Your task to perform on an android device: toggle translation in the chrome app Image 0: 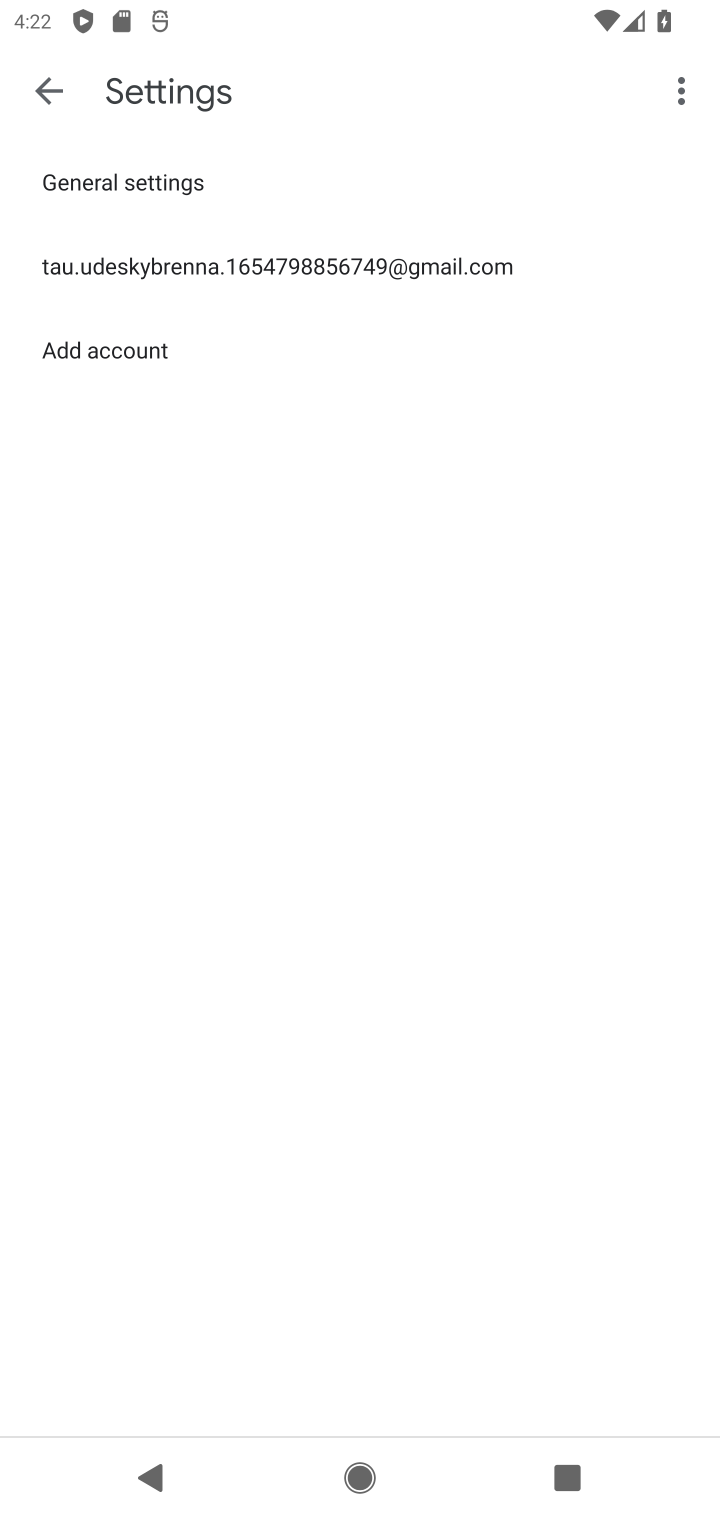
Step 0: press home button
Your task to perform on an android device: toggle translation in the chrome app Image 1: 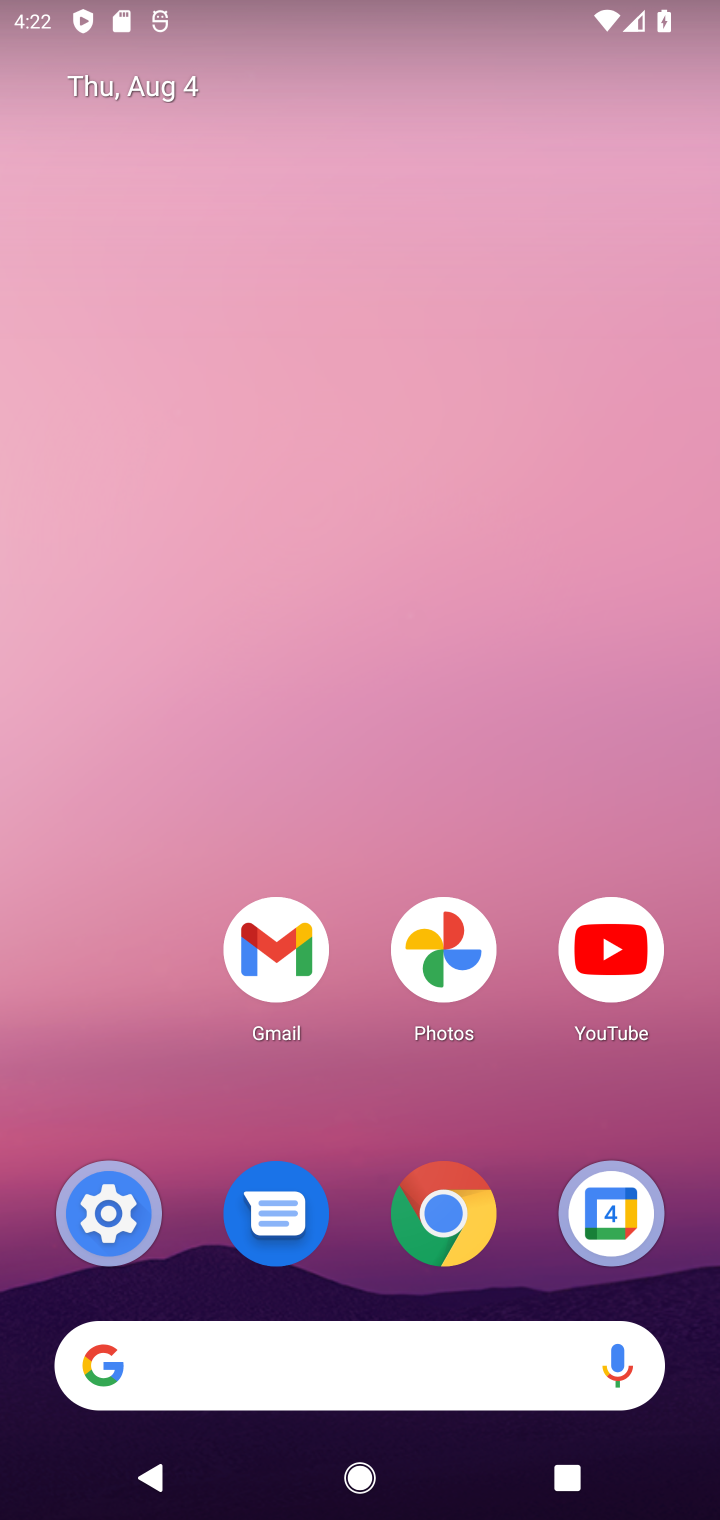
Step 1: drag from (95, 1067) to (101, 268)
Your task to perform on an android device: toggle translation in the chrome app Image 2: 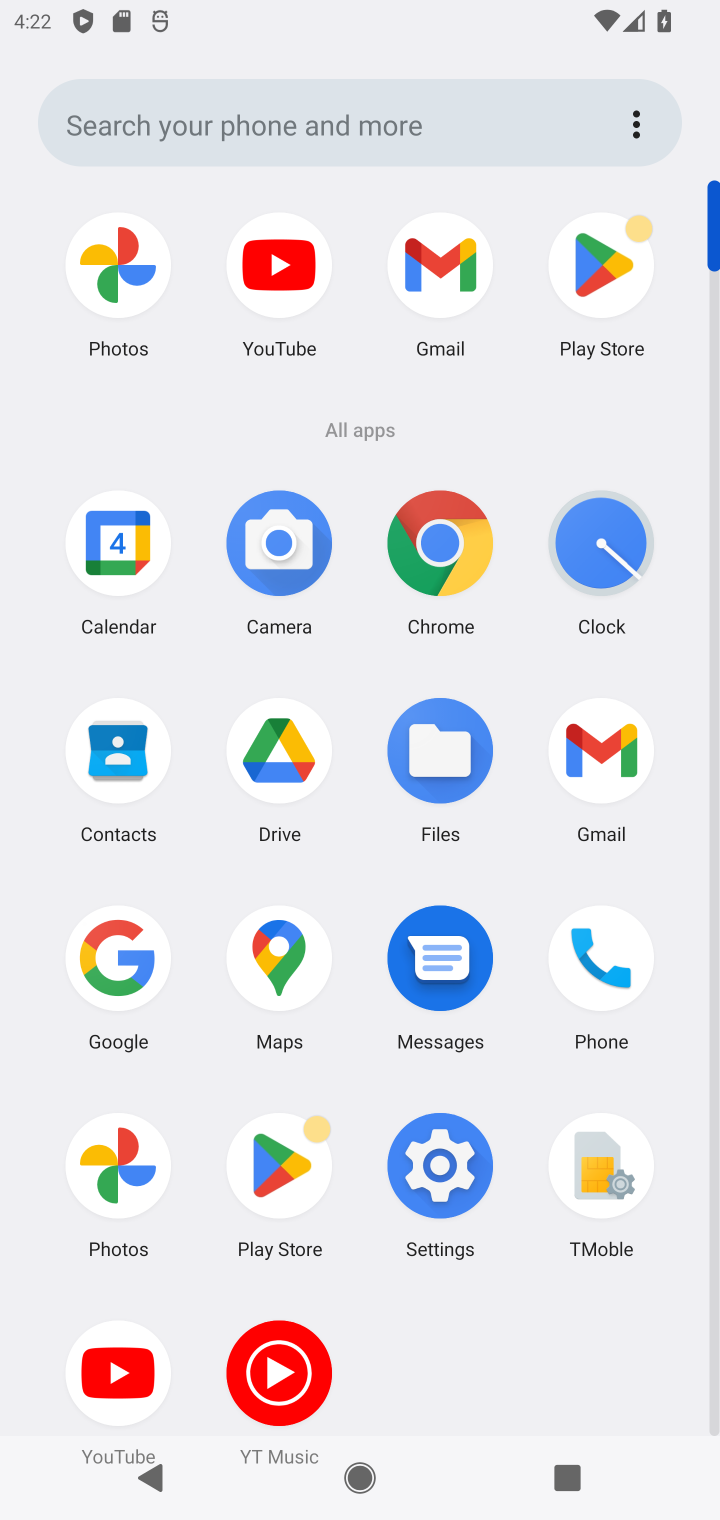
Step 2: click (454, 543)
Your task to perform on an android device: toggle translation in the chrome app Image 3: 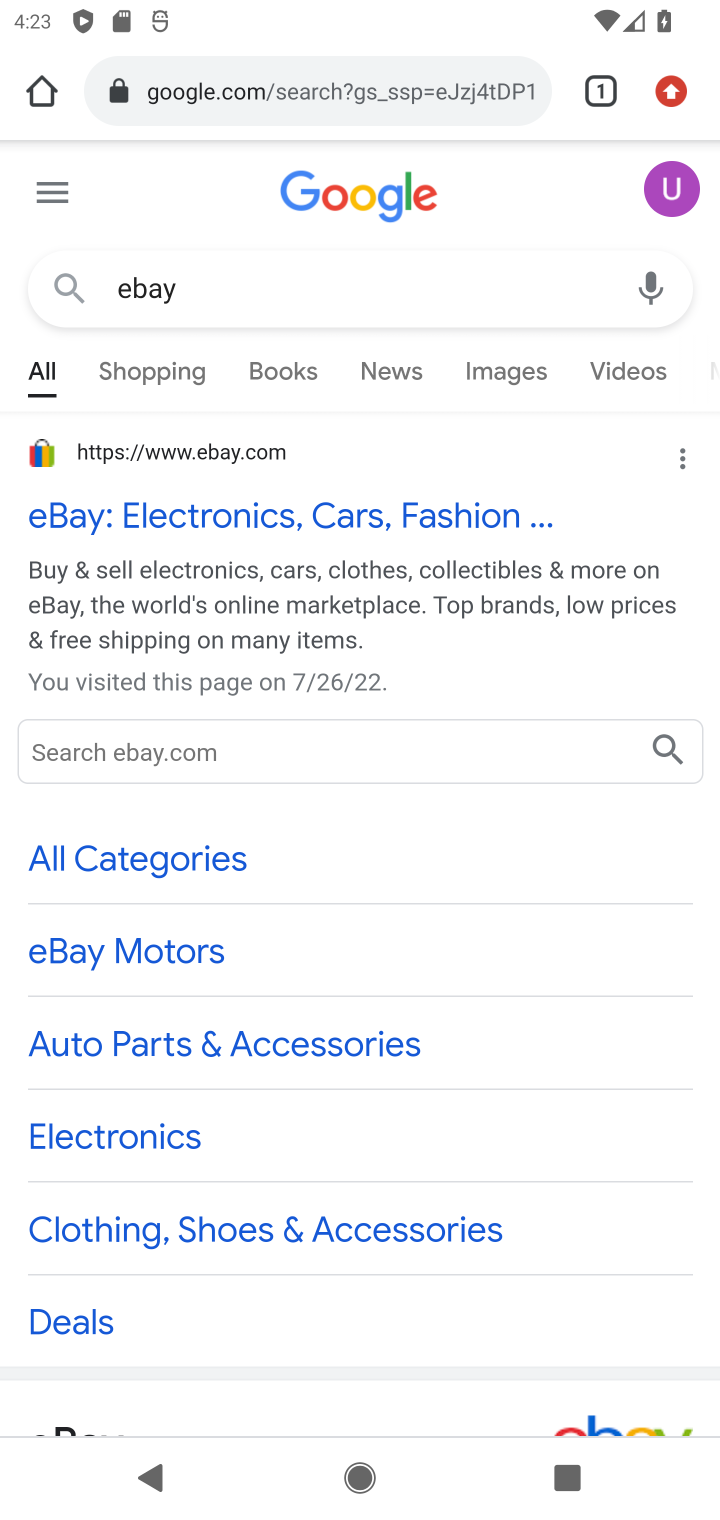
Step 3: click (671, 90)
Your task to perform on an android device: toggle translation in the chrome app Image 4: 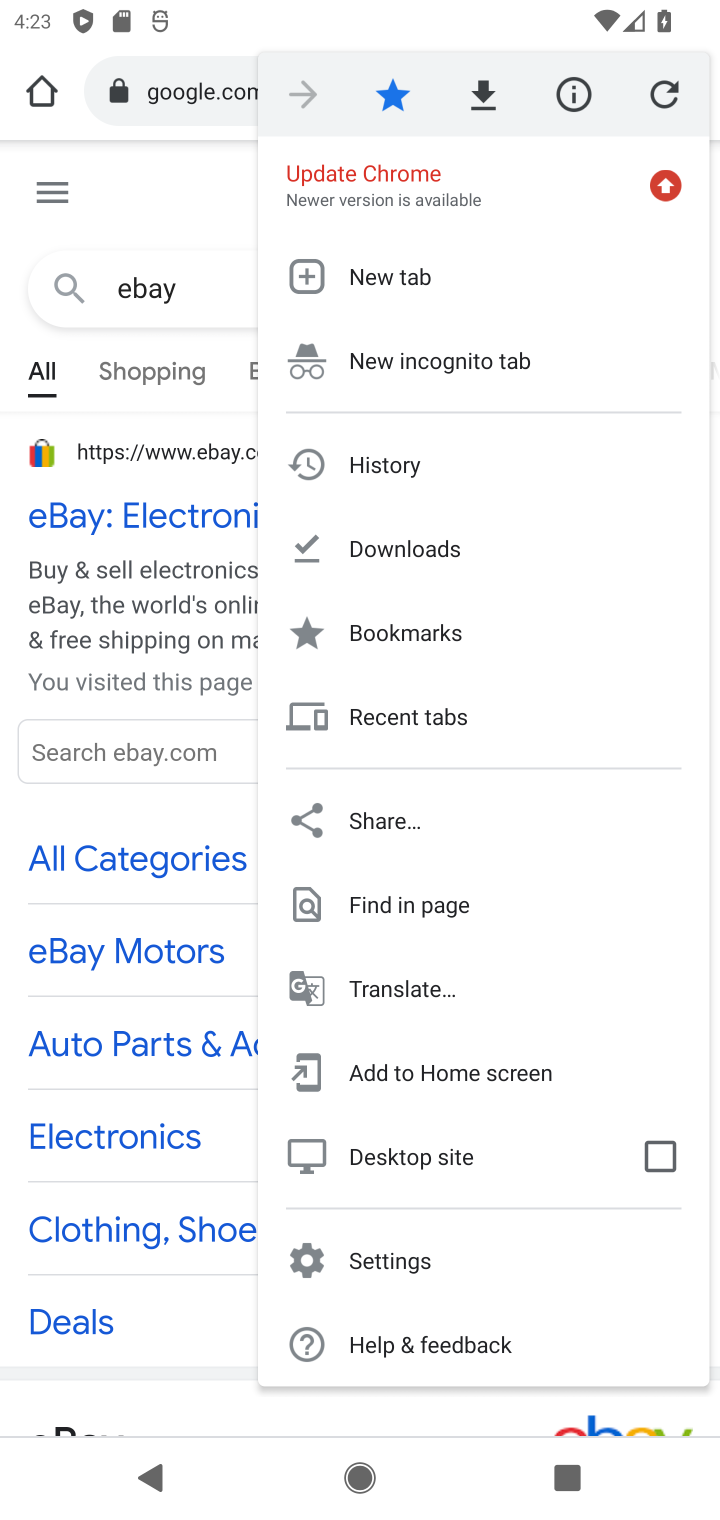
Step 4: click (429, 1255)
Your task to perform on an android device: toggle translation in the chrome app Image 5: 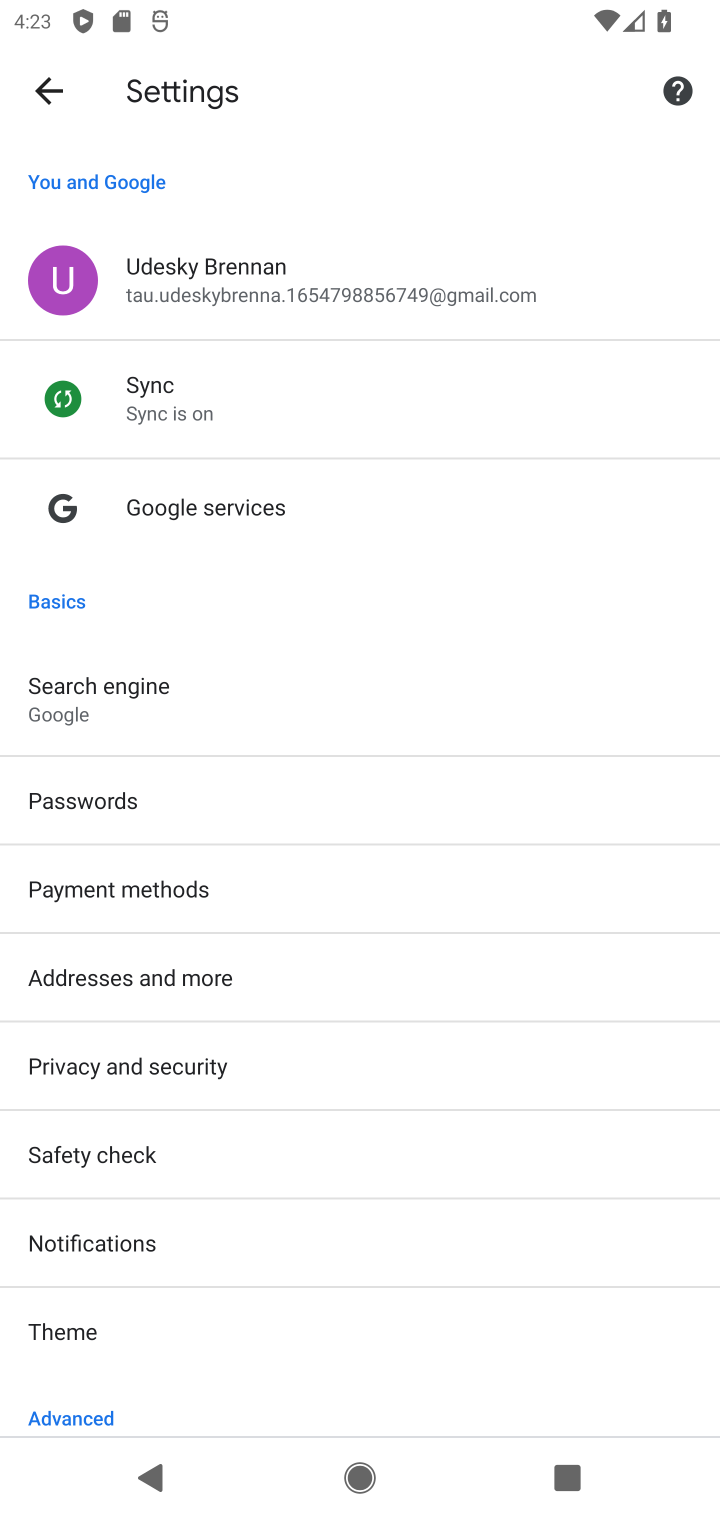
Step 5: drag from (502, 1171) to (499, 934)
Your task to perform on an android device: toggle translation in the chrome app Image 6: 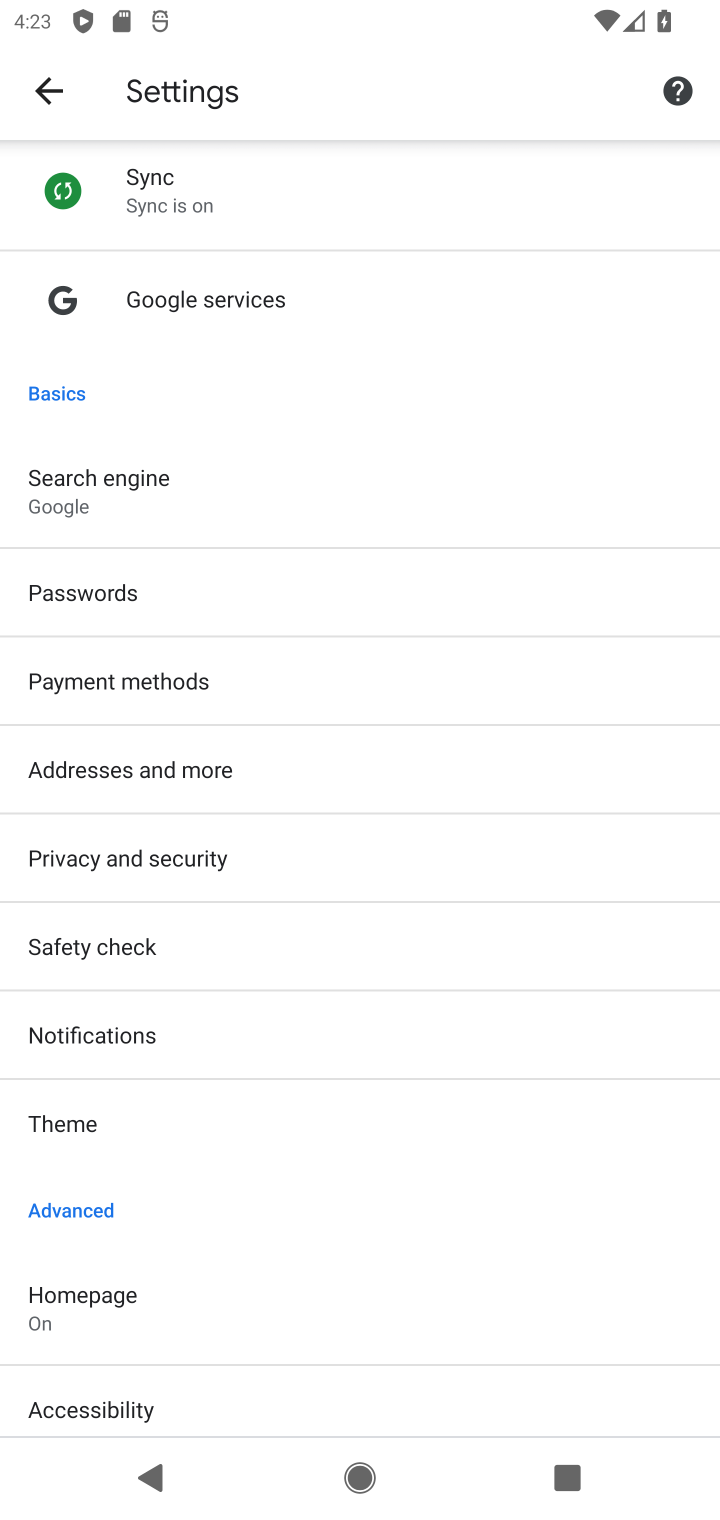
Step 6: drag from (486, 1238) to (503, 778)
Your task to perform on an android device: toggle translation in the chrome app Image 7: 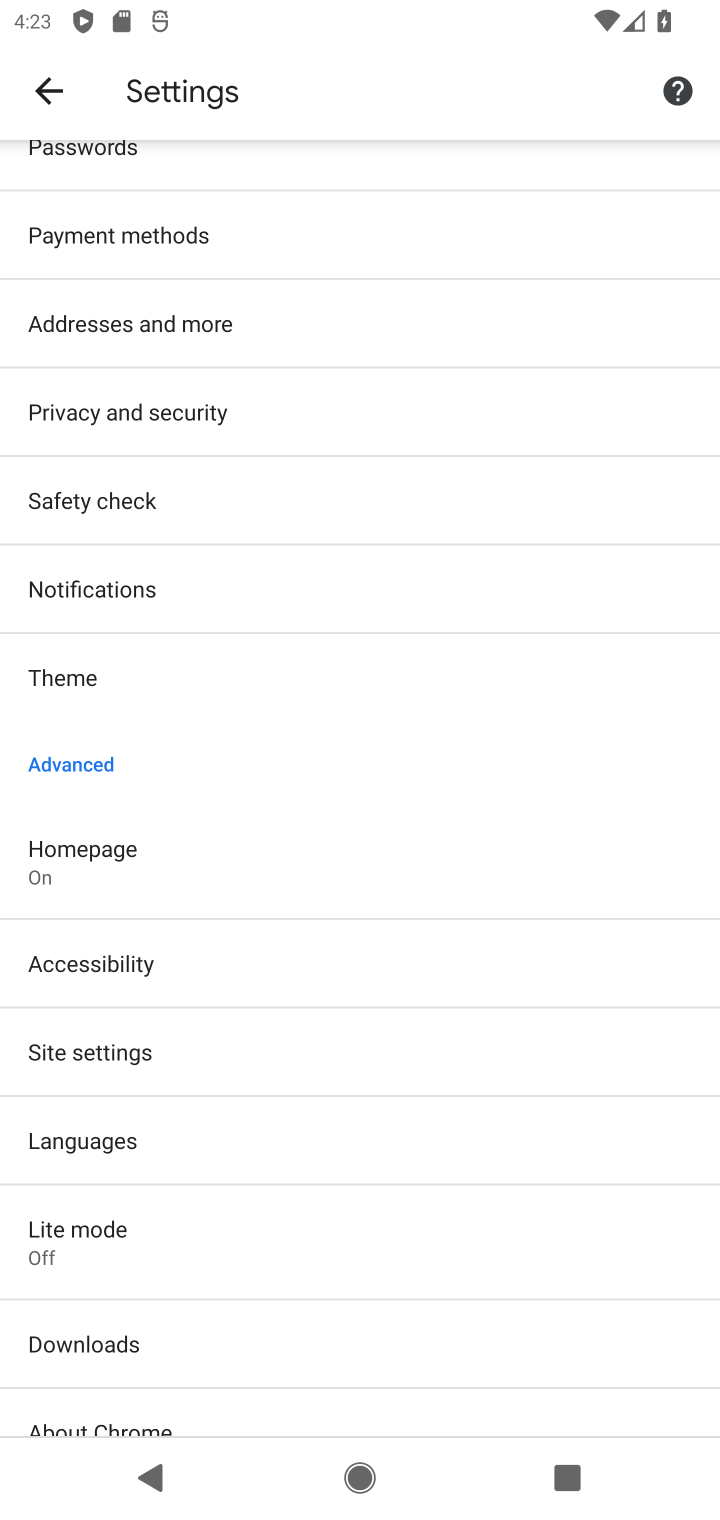
Step 7: click (413, 1144)
Your task to perform on an android device: toggle translation in the chrome app Image 8: 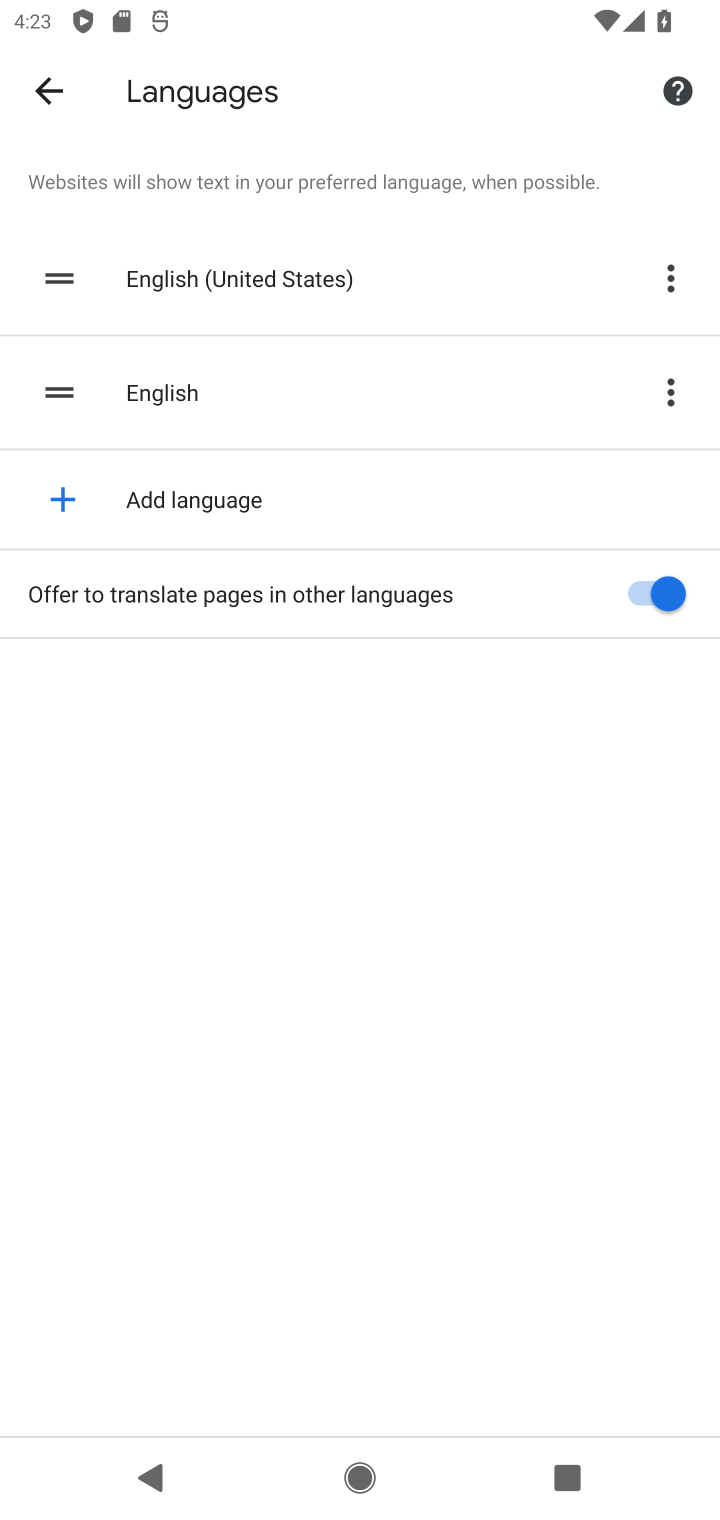
Step 8: click (655, 588)
Your task to perform on an android device: toggle translation in the chrome app Image 9: 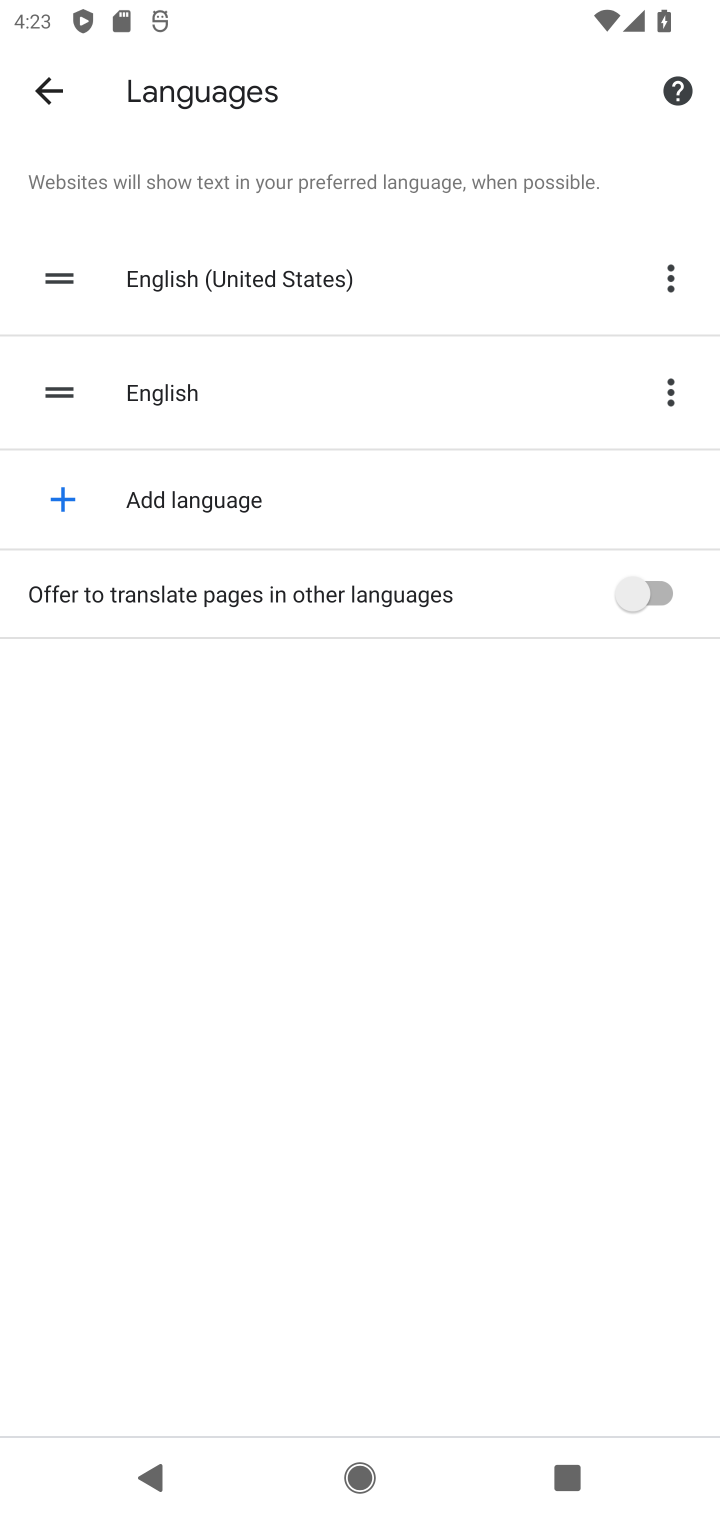
Step 9: task complete